Your task to perform on an android device: Open Chrome and go to settings Image 0: 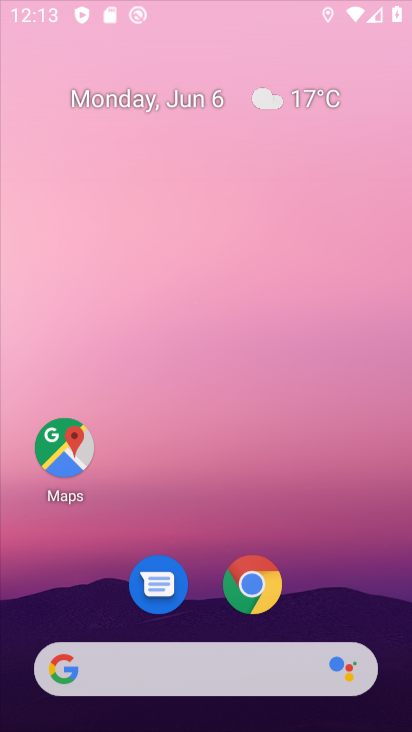
Step 0: drag from (322, 86) to (316, 36)
Your task to perform on an android device: Open Chrome and go to settings Image 1: 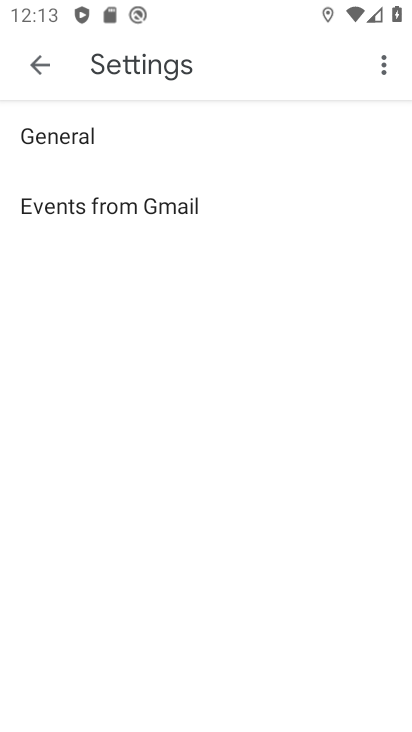
Step 1: press home button
Your task to perform on an android device: Open Chrome and go to settings Image 2: 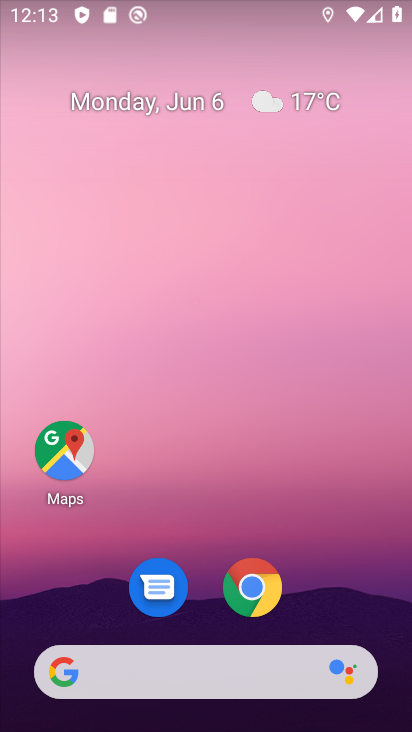
Step 2: click (264, 581)
Your task to perform on an android device: Open Chrome and go to settings Image 3: 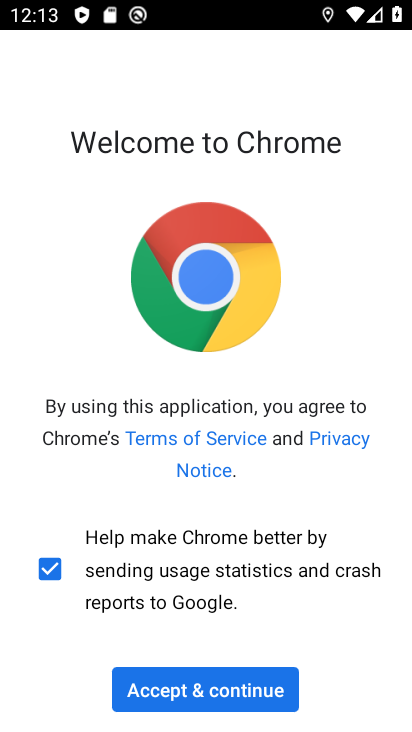
Step 3: click (262, 700)
Your task to perform on an android device: Open Chrome and go to settings Image 4: 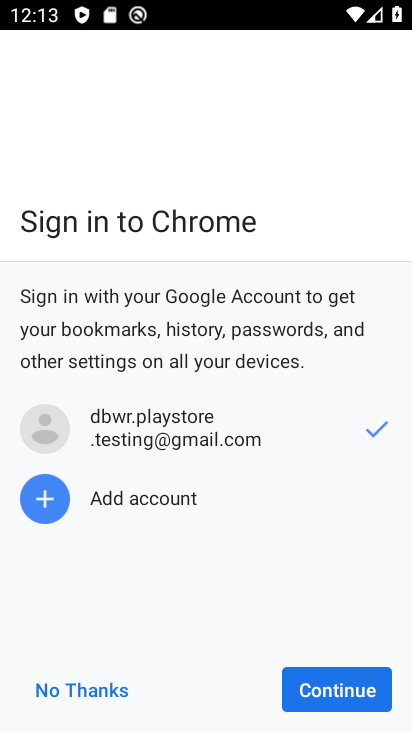
Step 4: click (309, 696)
Your task to perform on an android device: Open Chrome and go to settings Image 5: 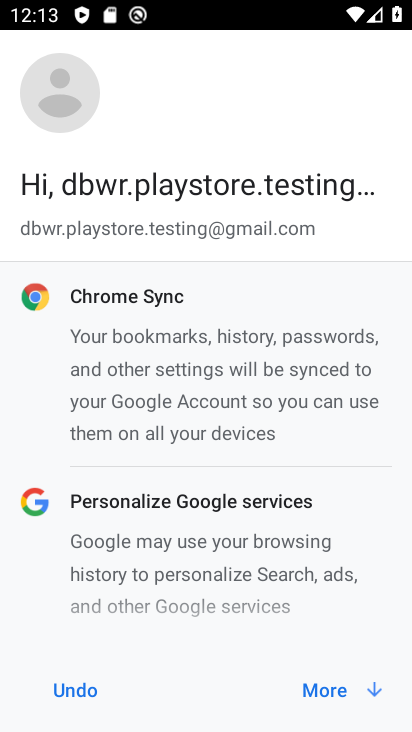
Step 5: click (309, 696)
Your task to perform on an android device: Open Chrome and go to settings Image 6: 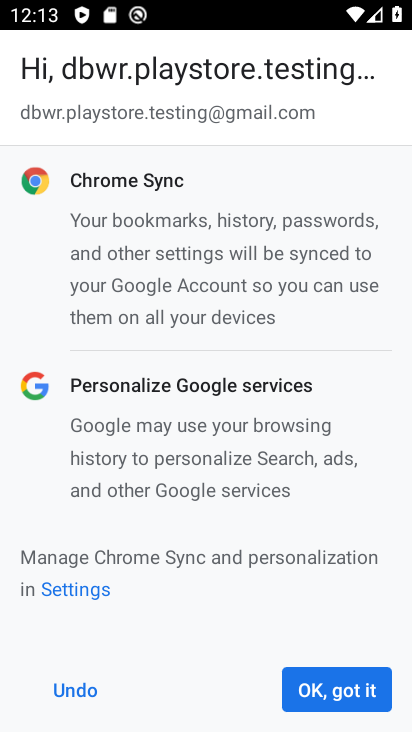
Step 6: click (309, 696)
Your task to perform on an android device: Open Chrome and go to settings Image 7: 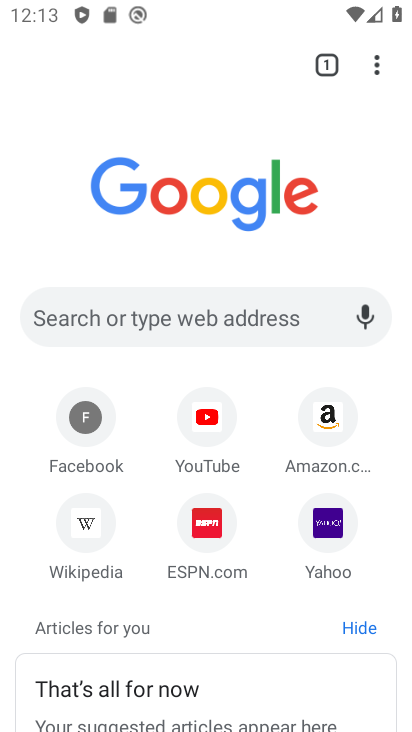
Step 7: click (376, 68)
Your task to perform on an android device: Open Chrome and go to settings Image 8: 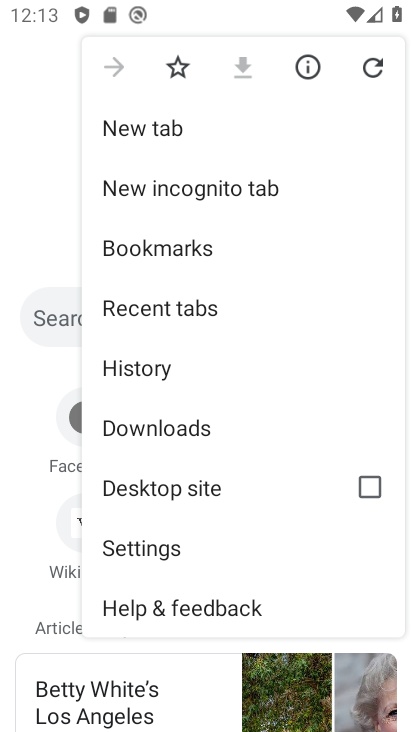
Step 8: click (196, 550)
Your task to perform on an android device: Open Chrome and go to settings Image 9: 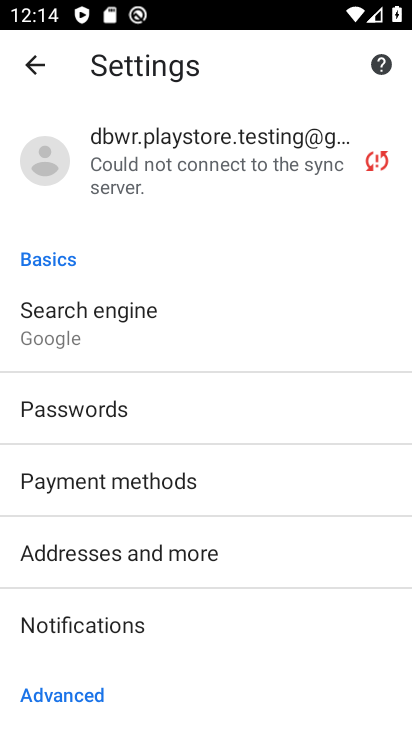
Step 9: task complete